Your task to perform on an android device: Go to ESPN.com Image 0: 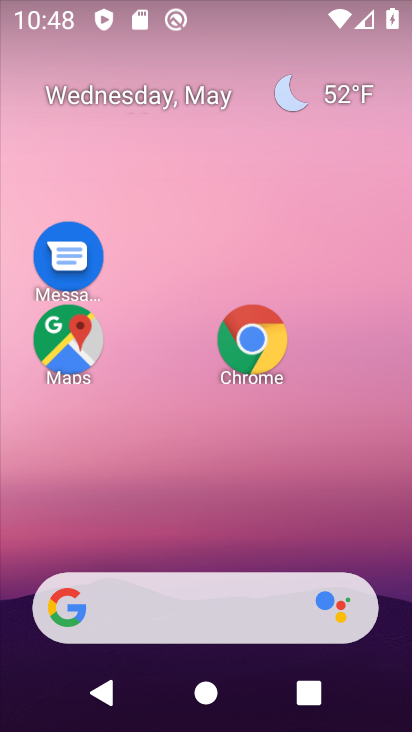
Step 0: drag from (243, 469) to (178, 69)
Your task to perform on an android device: Go to ESPN.com Image 1: 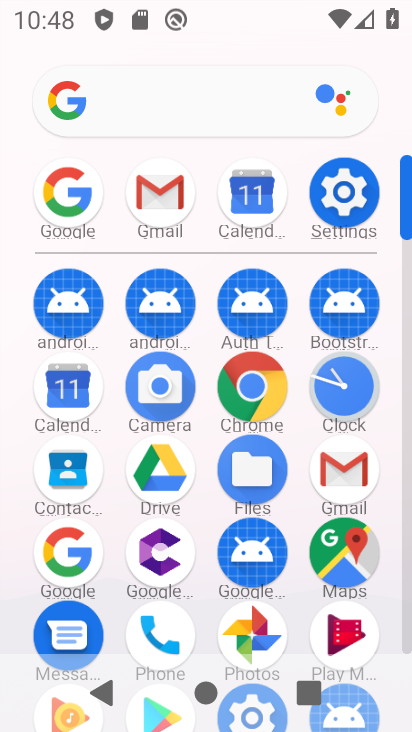
Step 1: click (64, 193)
Your task to perform on an android device: Go to ESPN.com Image 2: 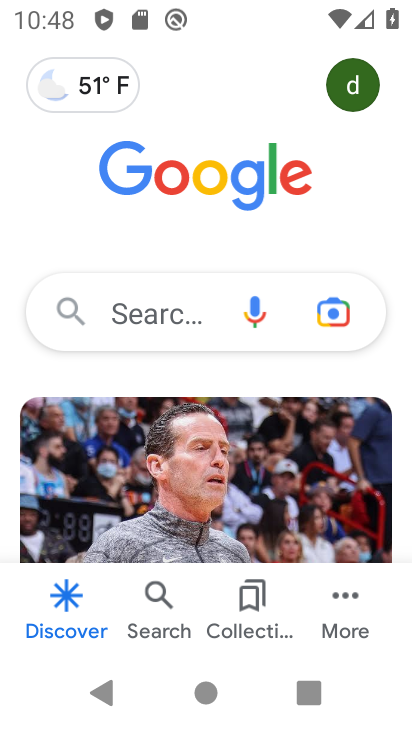
Step 2: click (151, 326)
Your task to perform on an android device: Go to ESPN.com Image 3: 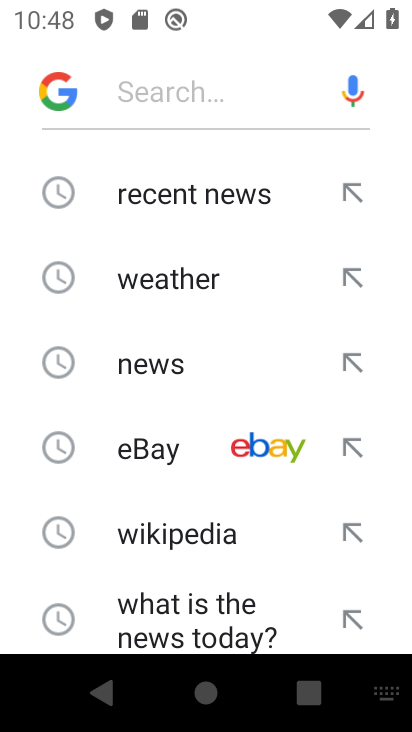
Step 3: drag from (212, 587) to (203, 140)
Your task to perform on an android device: Go to ESPN.com Image 4: 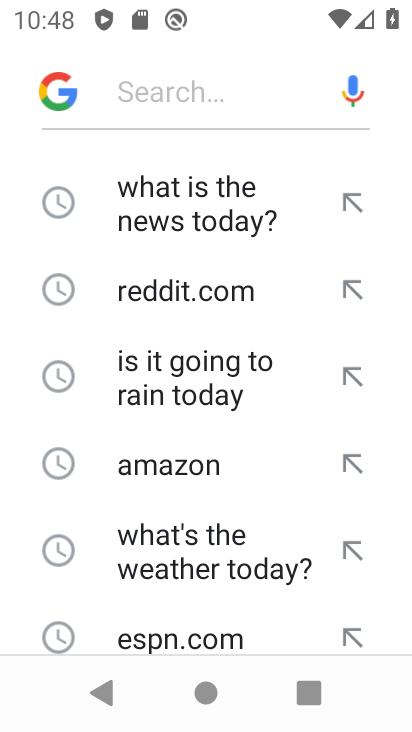
Step 4: drag from (207, 498) to (188, 286)
Your task to perform on an android device: Go to ESPN.com Image 5: 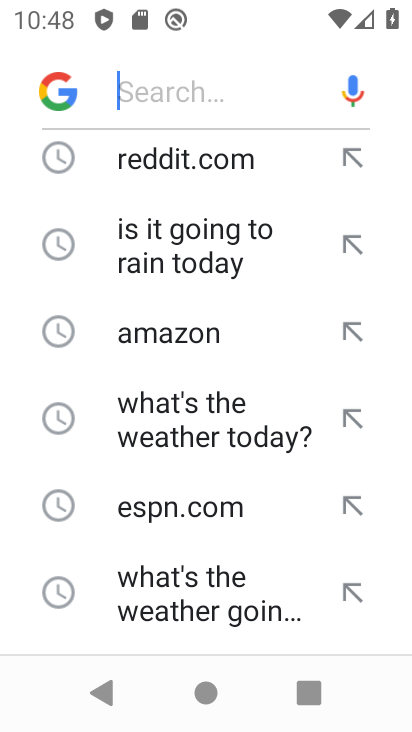
Step 5: click (186, 518)
Your task to perform on an android device: Go to ESPN.com Image 6: 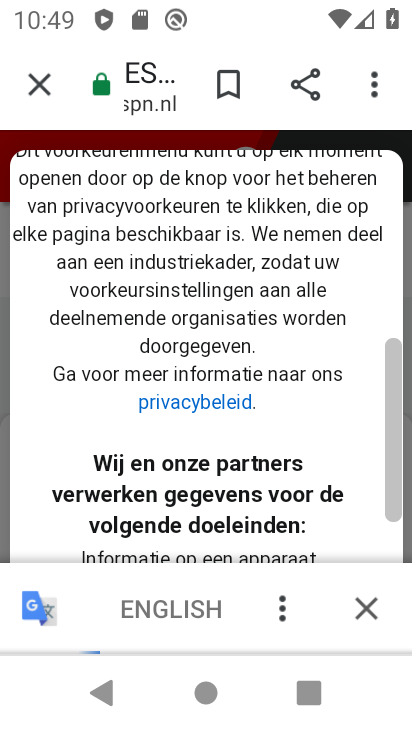
Step 6: task complete